Your task to perform on an android device: manage bookmarks in the chrome app Image 0: 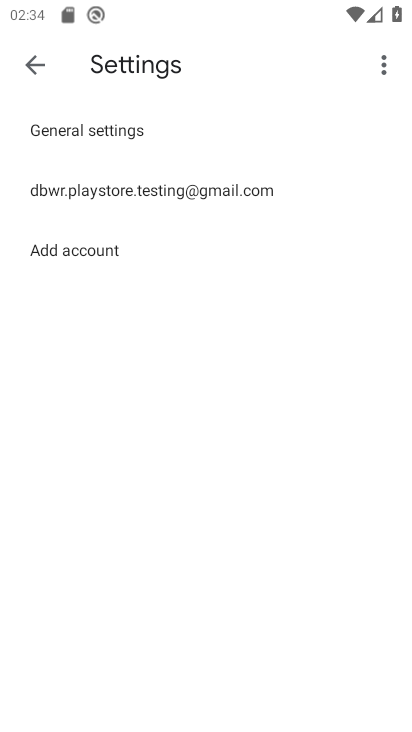
Step 0: press home button
Your task to perform on an android device: manage bookmarks in the chrome app Image 1: 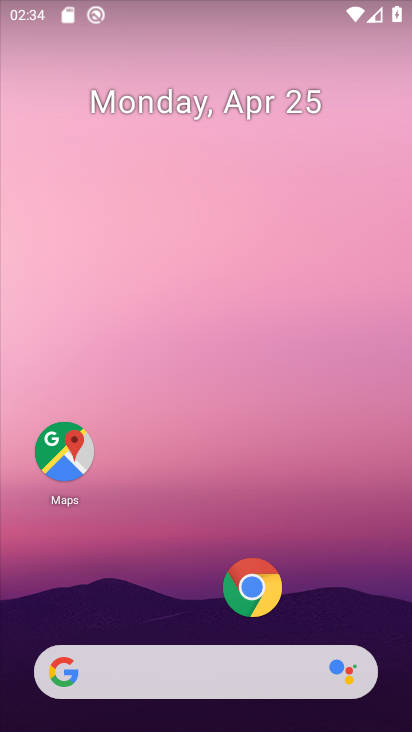
Step 1: click (246, 579)
Your task to perform on an android device: manage bookmarks in the chrome app Image 2: 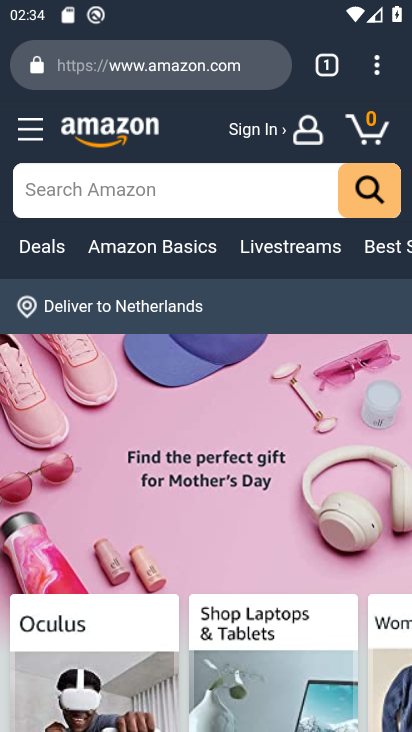
Step 2: press back button
Your task to perform on an android device: manage bookmarks in the chrome app Image 3: 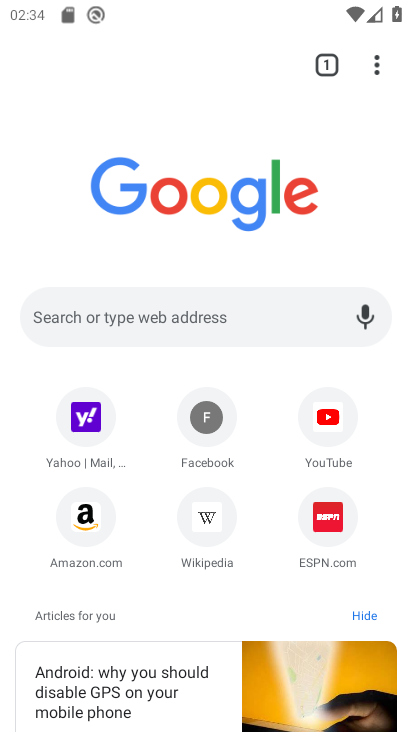
Step 3: click (377, 61)
Your task to perform on an android device: manage bookmarks in the chrome app Image 4: 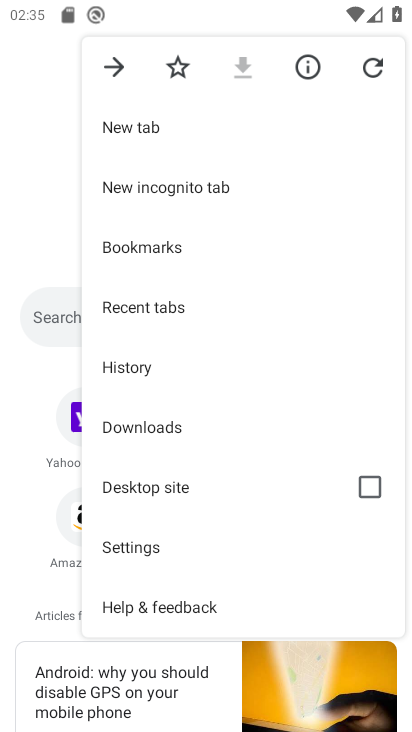
Step 4: click (188, 243)
Your task to perform on an android device: manage bookmarks in the chrome app Image 5: 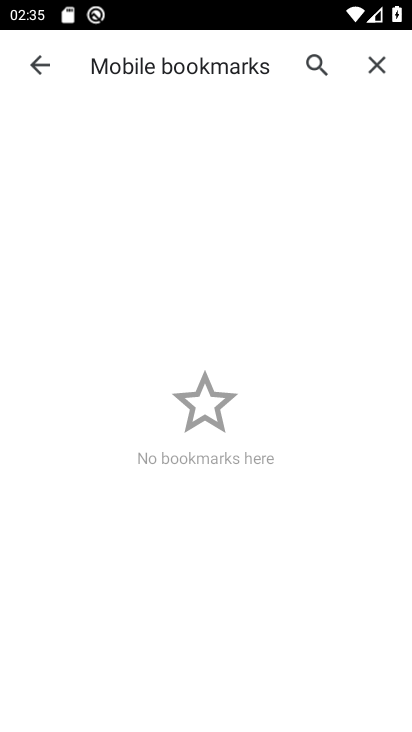
Step 5: task complete